Your task to perform on an android device: Open the map Image 0: 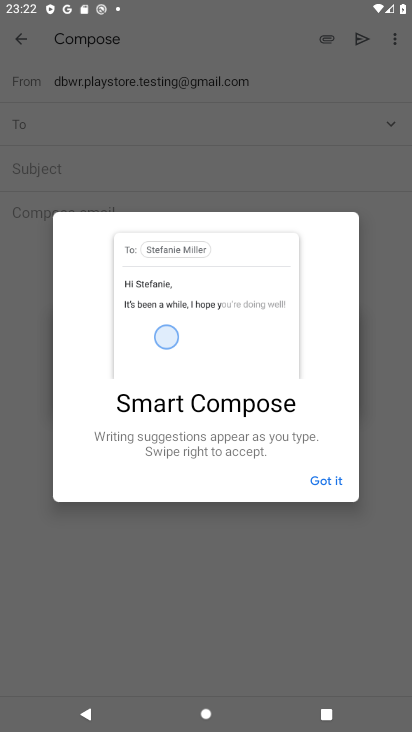
Step 0: press home button
Your task to perform on an android device: Open the map Image 1: 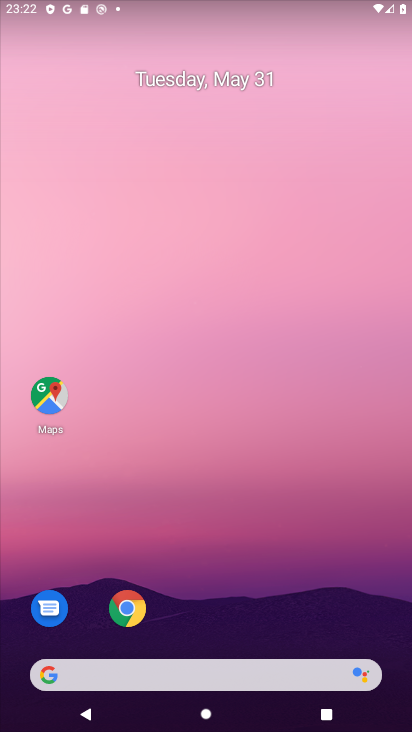
Step 1: click (19, 395)
Your task to perform on an android device: Open the map Image 2: 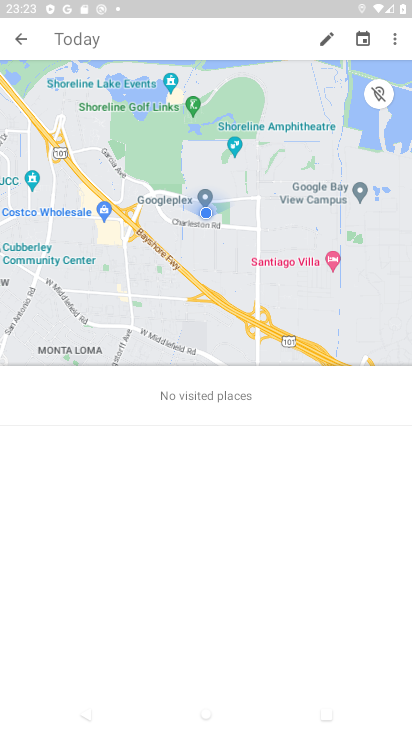
Step 2: task complete